Your task to perform on an android device: Is it going to rain tomorrow? Image 0: 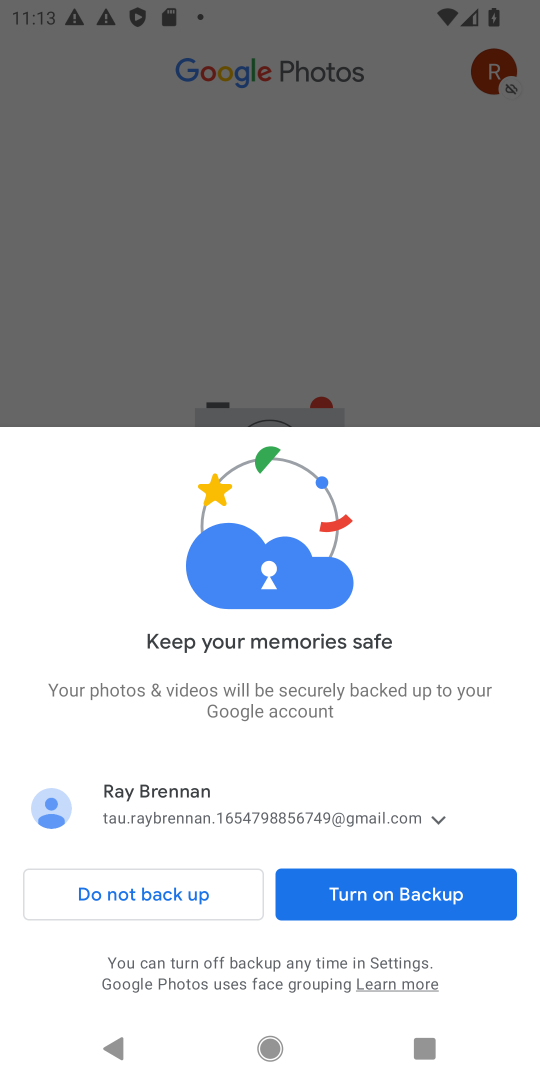
Step 0: press home button
Your task to perform on an android device: Is it going to rain tomorrow? Image 1: 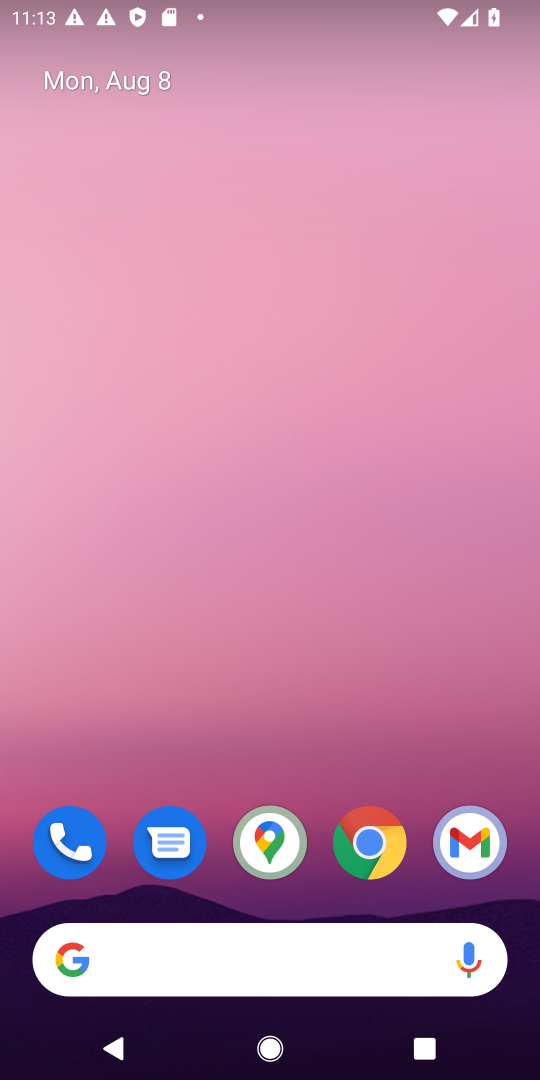
Step 1: click (280, 976)
Your task to perform on an android device: Is it going to rain tomorrow? Image 2: 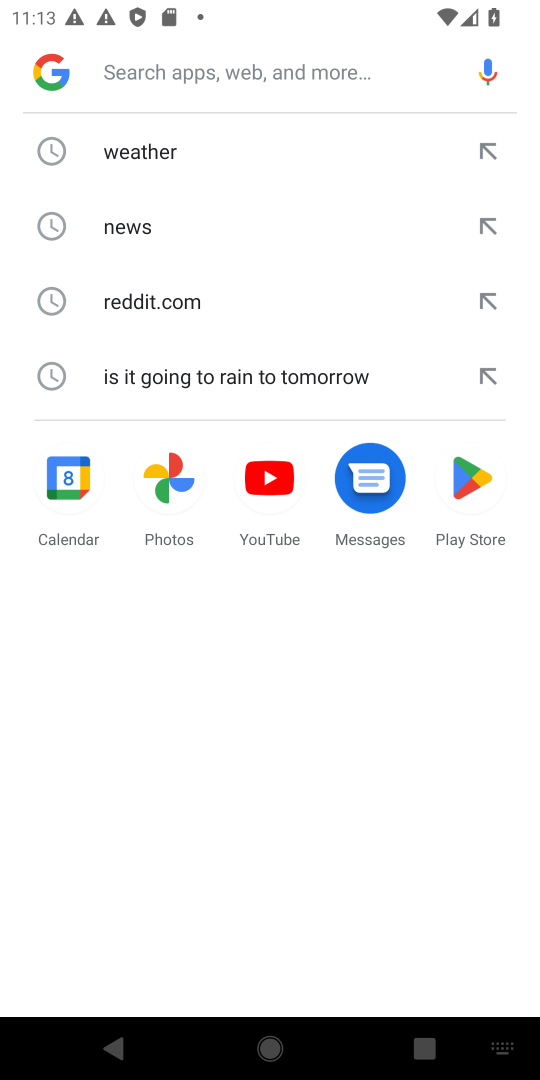
Step 2: click (142, 381)
Your task to perform on an android device: Is it going to rain tomorrow? Image 3: 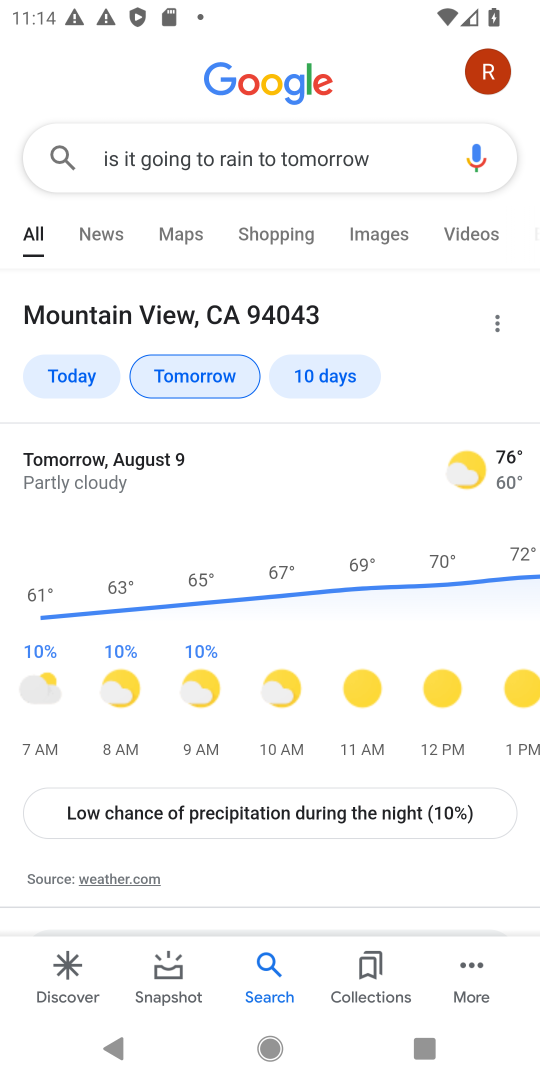
Step 3: task complete